Your task to perform on an android device: clear all cookies in the chrome app Image 0: 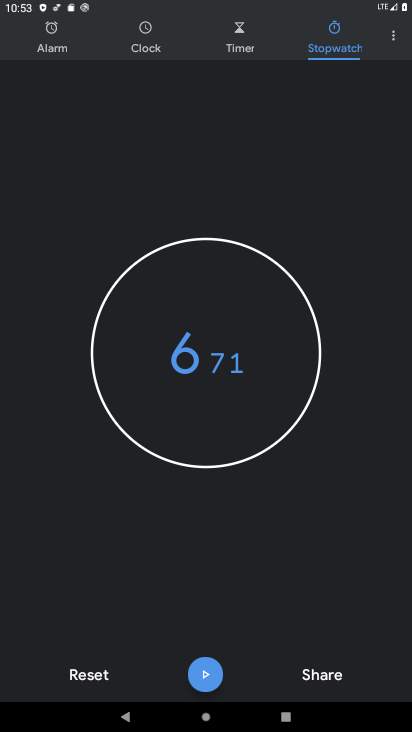
Step 0: press back button
Your task to perform on an android device: clear all cookies in the chrome app Image 1: 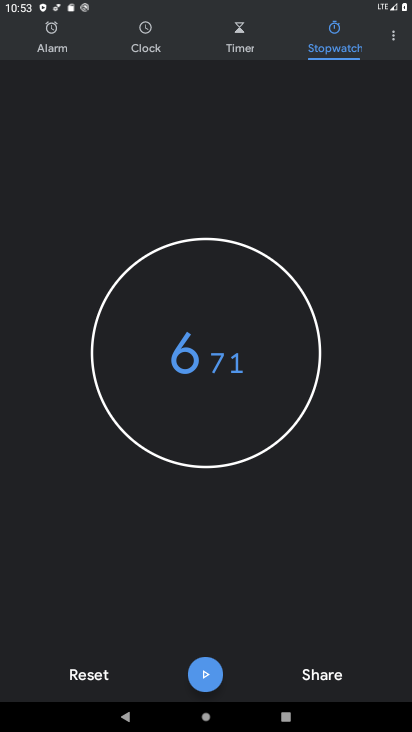
Step 1: press back button
Your task to perform on an android device: clear all cookies in the chrome app Image 2: 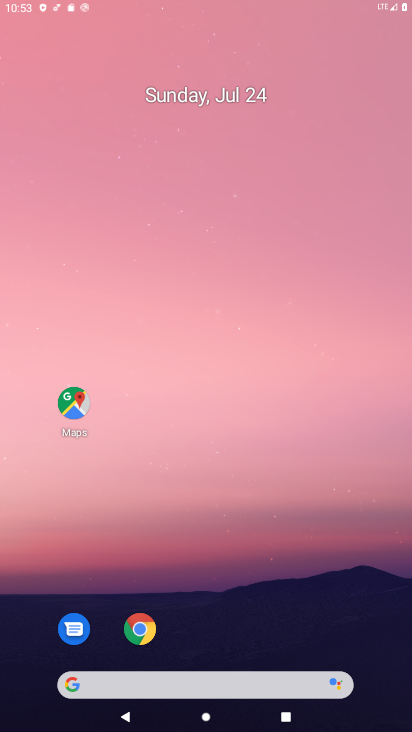
Step 2: press back button
Your task to perform on an android device: clear all cookies in the chrome app Image 3: 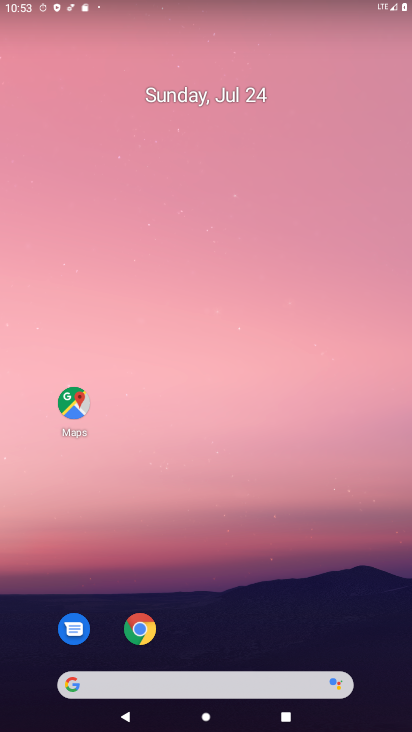
Step 3: drag from (280, 413) to (193, 53)
Your task to perform on an android device: clear all cookies in the chrome app Image 4: 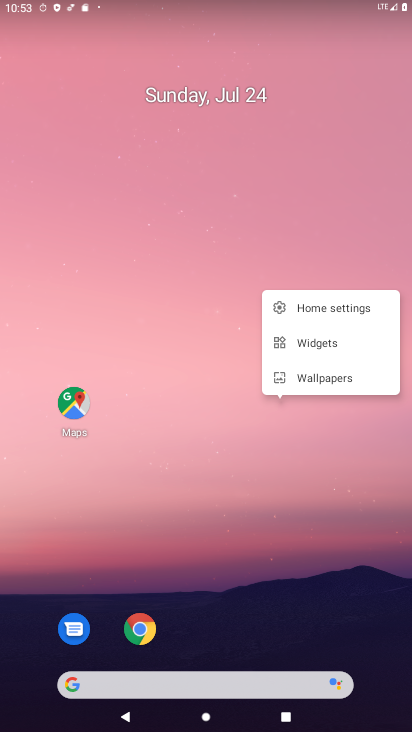
Step 4: drag from (326, 410) to (190, 22)
Your task to perform on an android device: clear all cookies in the chrome app Image 5: 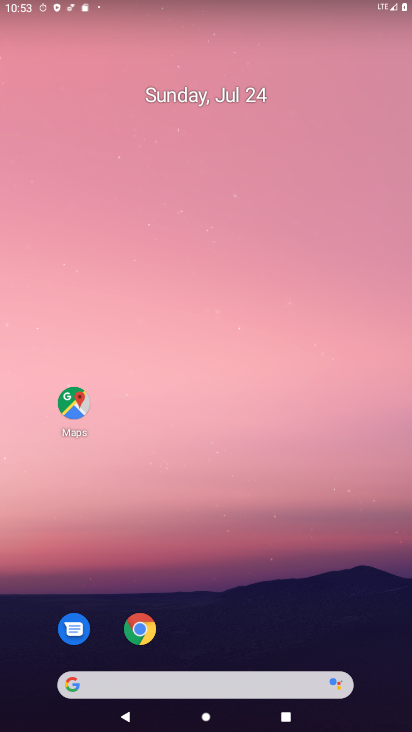
Step 5: drag from (128, 457) to (107, 77)
Your task to perform on an android device: clear all cookies in the chrome app Image 6: 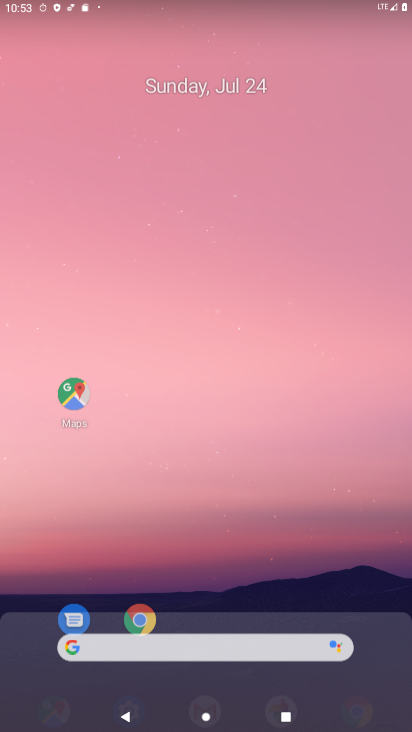
Step 6: drag from (191, 122) to (220, 194)
Your task to perform on an android device: clear all cookies in the chrome app Image 7: 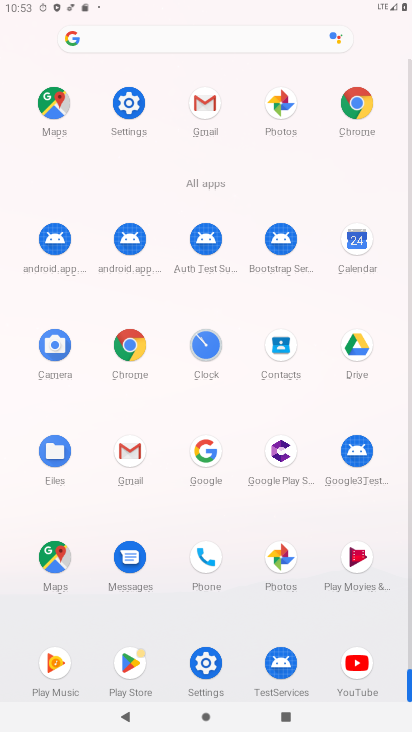
Step 7: click (353, 118)
Your task to perform on an android device: clear all cookies in the chrome app Image 8: 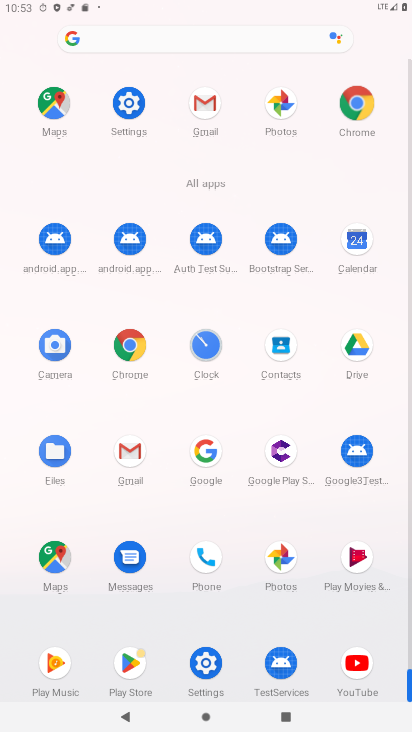
Step 8: click (355, 112)
Your task to perform on an android device: clear all cookies in the chrome app Image 9: 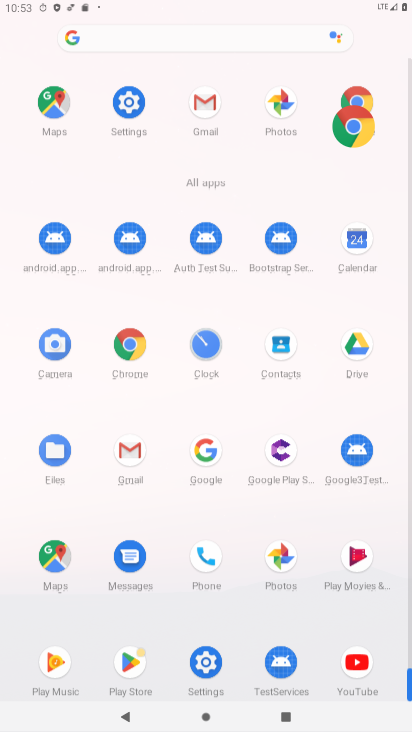
Step 9: click (355, 107)
Your task to perform on an android device: clear all cookies in the chrome app Image 10: 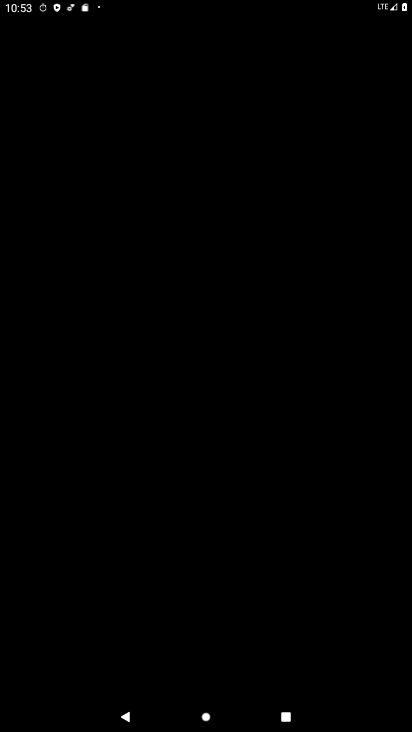
Step 10: click (356, 106)
Your task to perform on an android device: clear all cookies in the chrome app Image 11: 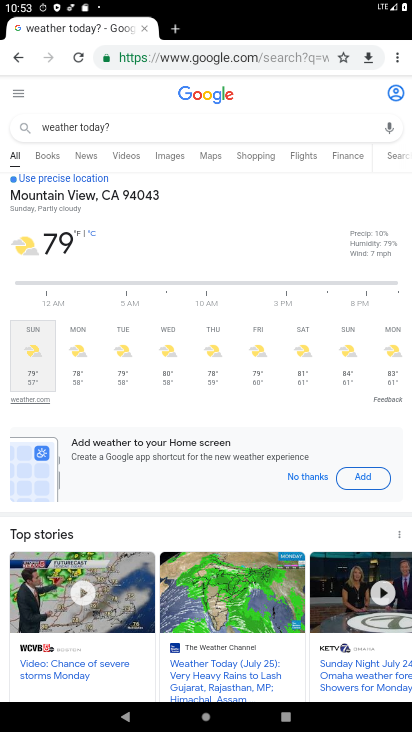
Step 11: drag from (399, 53) to (278, 355)
Your task to perform on an android device: clear all cookies in the chrome app Image 12: 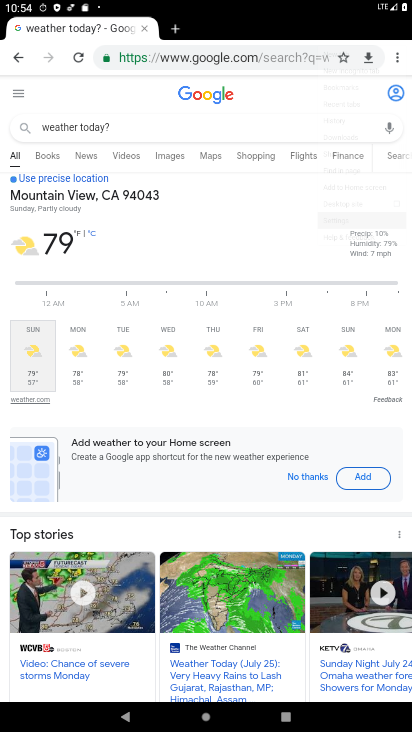
Step 12: click (278, 355)
Your task to perform on an android device: clear all cookies in the chrome app Image 13: 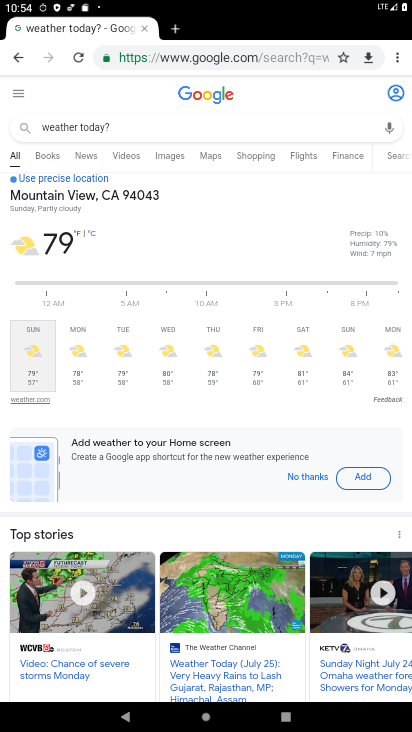
Step 13: click (276, 354)
Your task to perform on an android device: clear all cookies in the chrome app Image 14: 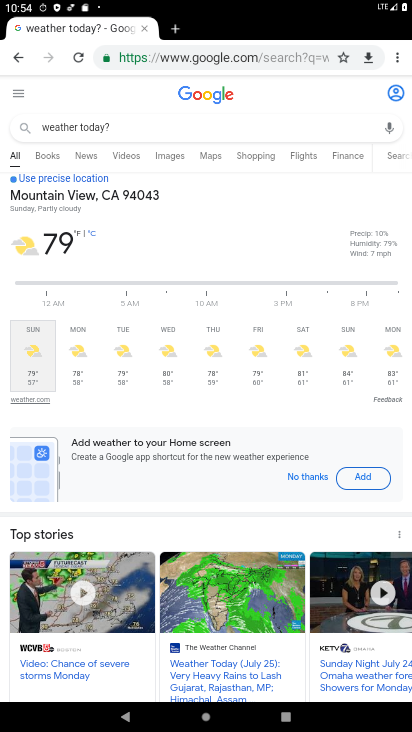
Step 14: click (275, 352)
Your task to perform on an android device: clear all cookies in the chrome app Image 15: 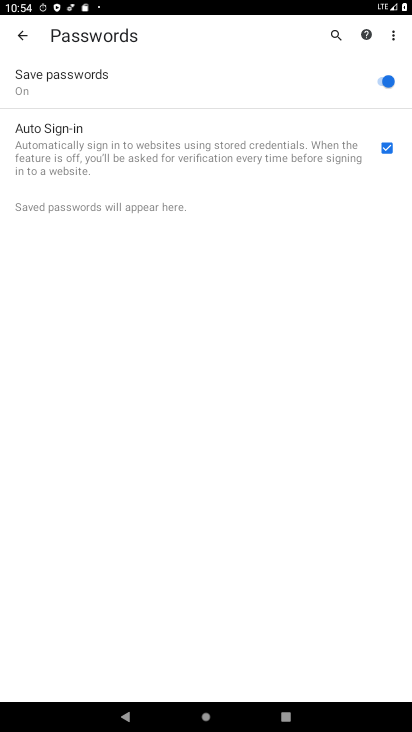
Step 15: click (31, 30)
Your task to perform on an android device: clear all cookies in the chrome app Image 16: 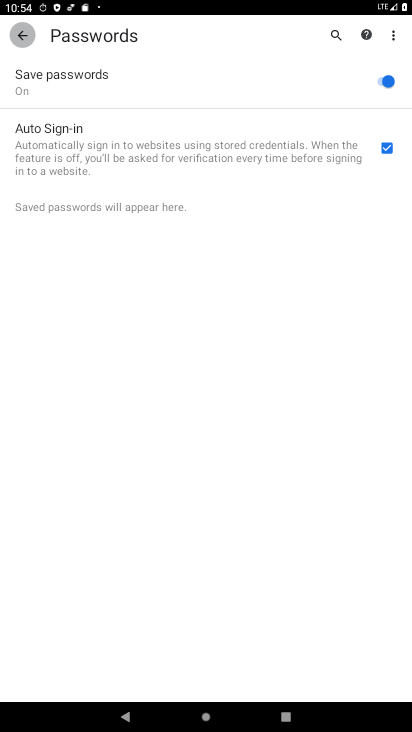
Step 16: click (33, 46)
Your task to perform on an android device: clear all cookies in the chrome app Image 17: 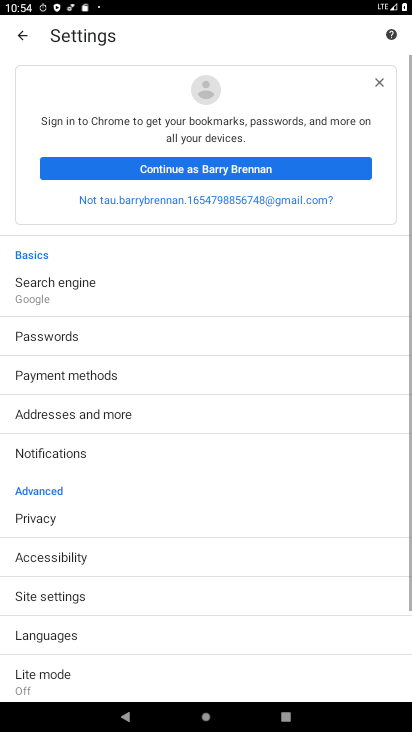
Step 17: drag from (61, 427) to (58, 259)
Your task to perform on an android device: clear all cookies in the chrome app Image 18: 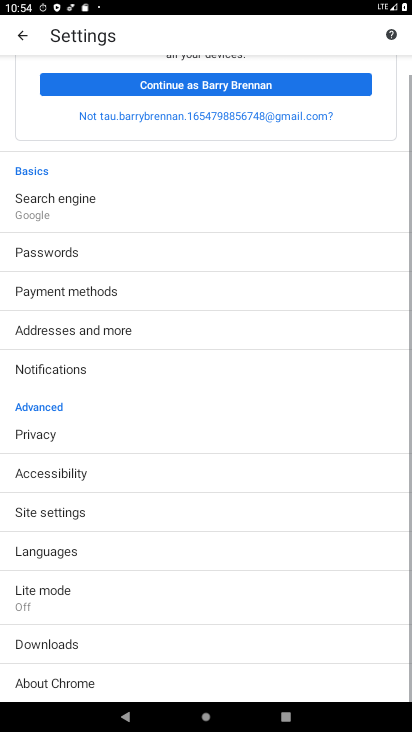
Step 18: drag from (170, 509) to (195, 232)
Your task to perform on an android device: clear all cookies in the chrome app Image 19: 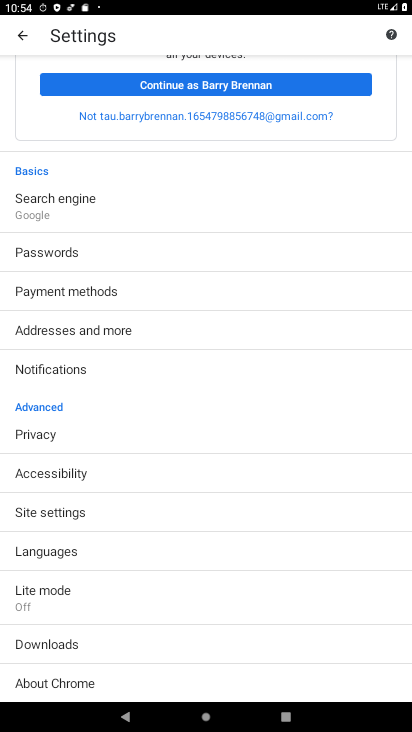
Step 19: click (47, 512)
Your task to perform on an android device: clear all cookies in the chrome app Image 20: 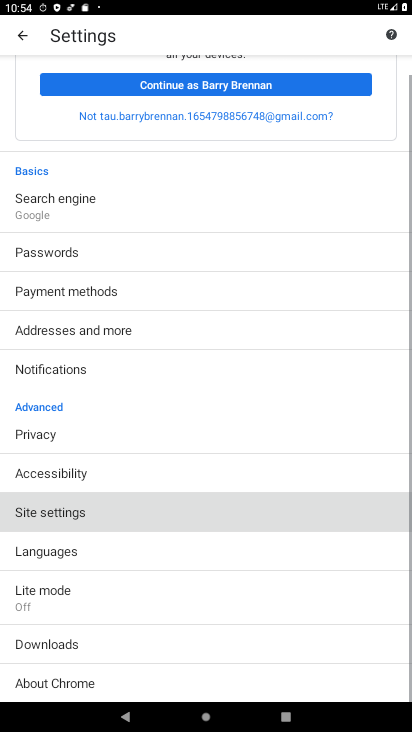
Step 20: click (47, 511)
Your task to perform on an android device: clear all cookies in the chrome app Image 21: 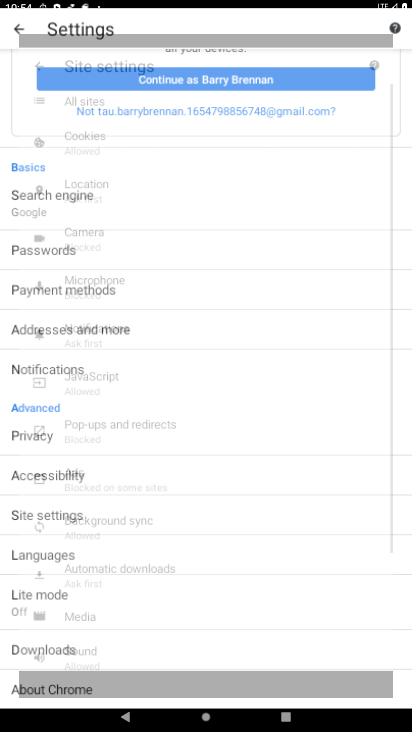
Step 21: click (48, 511)
Your task to perform on an android device: clear all cookies in the chrome app Image 22: 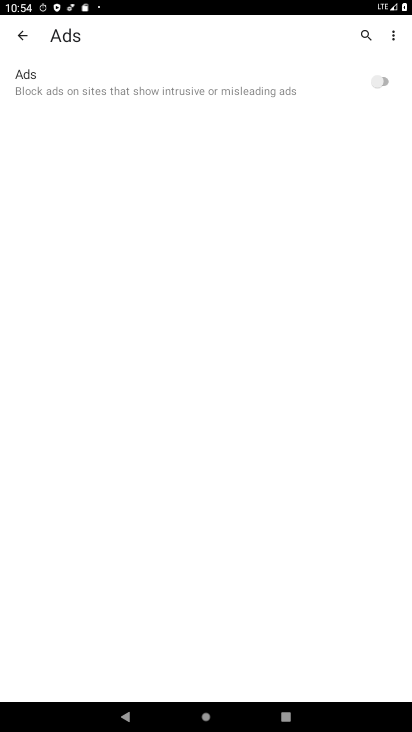
Step 22: click (10, 35)
Your task to perform on an android device: clear all cookies in the chrome app Image 23: 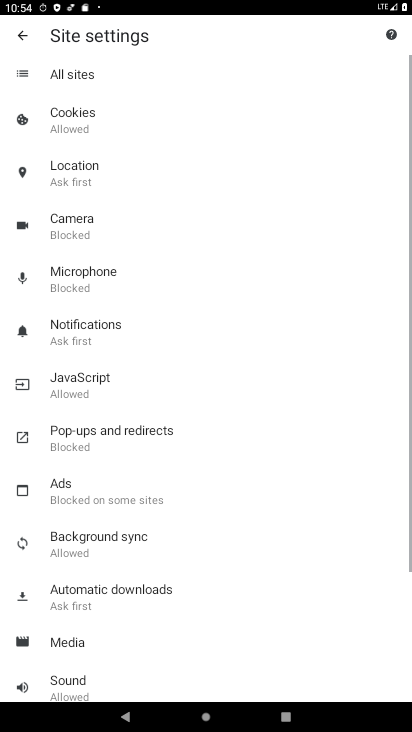
Step 23: click (78, 118)
Your task to perform on an android device: clear all cookies in the chrome app Image 24: 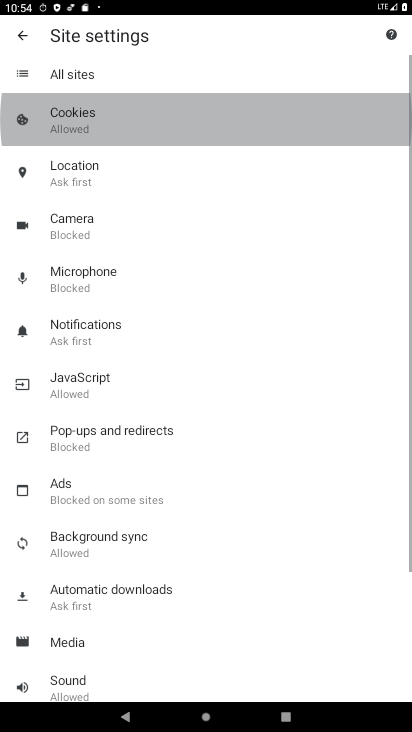
Step 24: click (75, 119)
Your task to perform on an android device: clear all cookies in the chrome app Image 25: 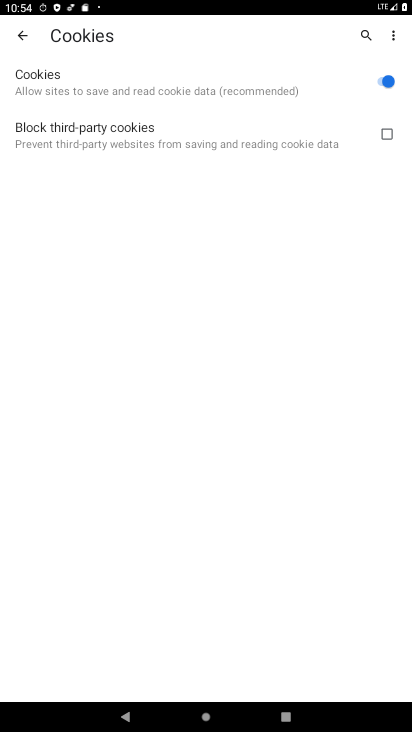
Step 25: click (387, 81)
Your task to perform on an android device: clear all cookies in the chrome app Image 26: 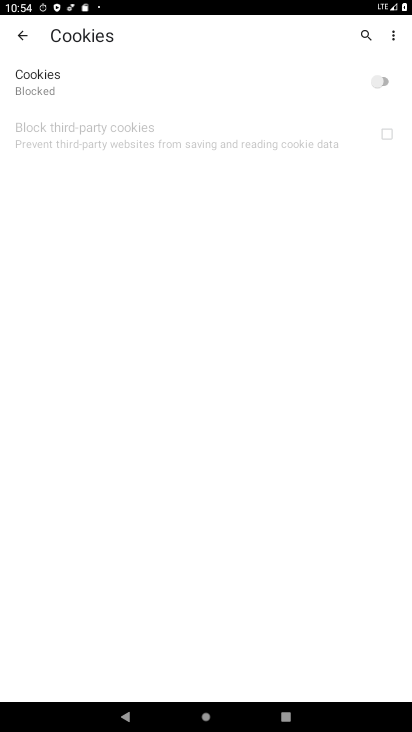
Step 26: task complete